Your task to perform on an android device: Open Maps and search for coffee Image 0: 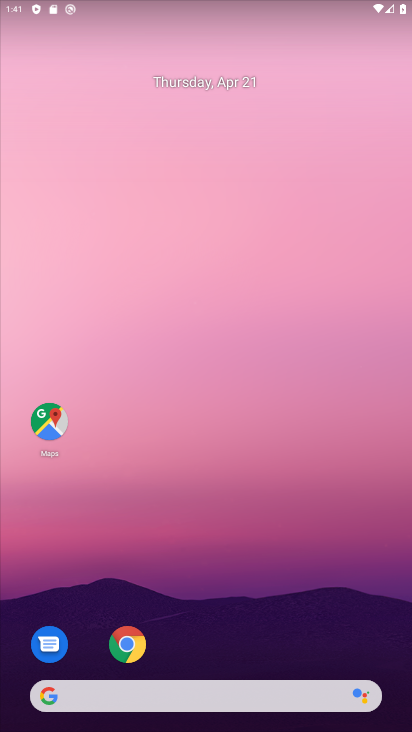
Step 0: click (49, 433)
Your task to perform on an android device: Open Maps and search for coffee Image 1: 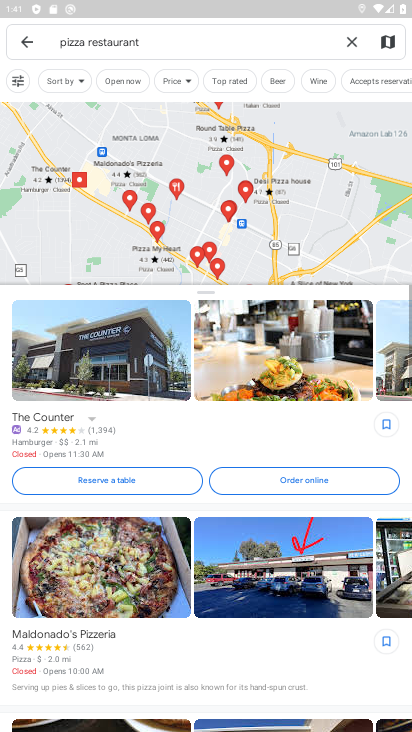
Step 1: click (217, 36)
Your task to perform on an android device: Open Maps and search for coffee Image 2: 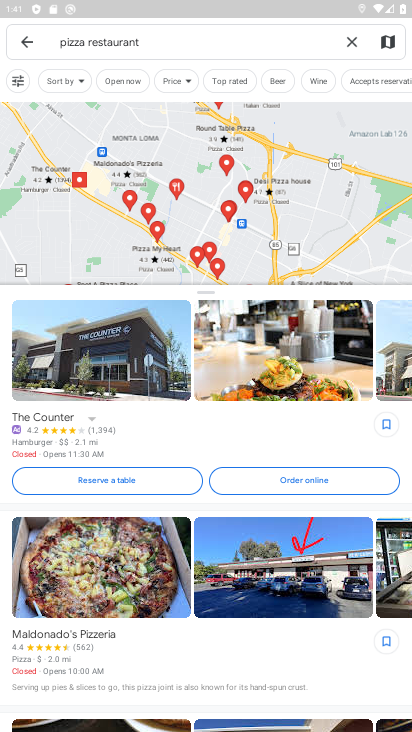
Step 2: click (349, 44)
Your task to perform on an android device: Open Maps and search for coffee Image 3: 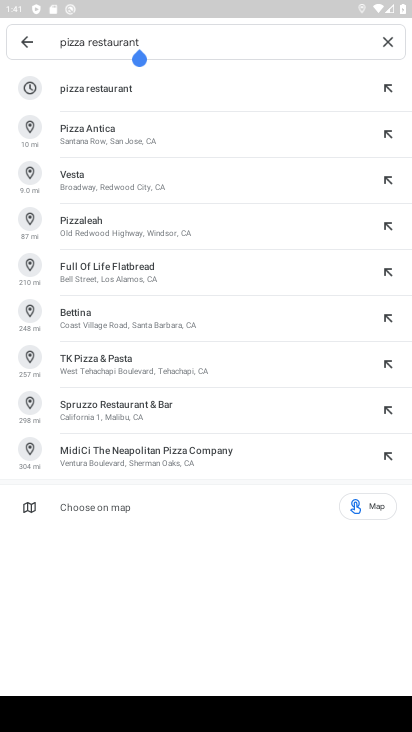
Step 3: click (389, 40)
Your task to perform on an android device: Open Maps and search for coffee Image 4: 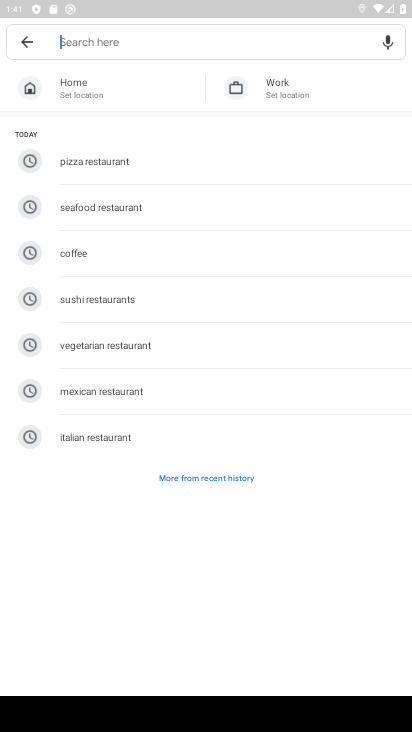
Step 4: click (285, 49)
Your task to perform on an android device: Open Maps and search for coffee Image 5: 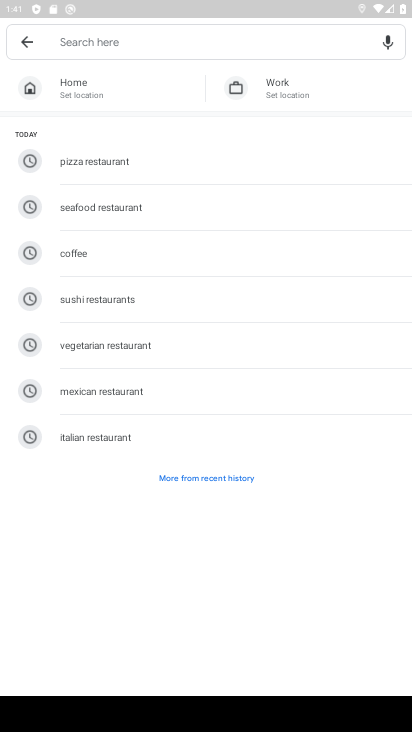
Step 5: click (221, 251)
Your task to perform on an android device: Open Maps and search for coffee Image 6: 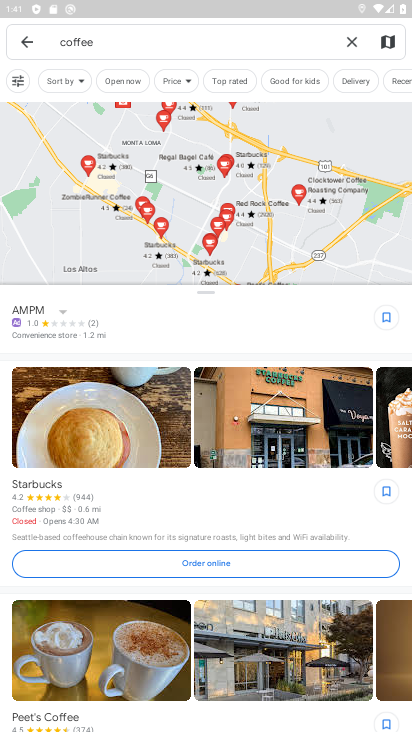
Step 6: task complete